Your task to perform on an android device: toggle show notifications on the lock screen Image 0: 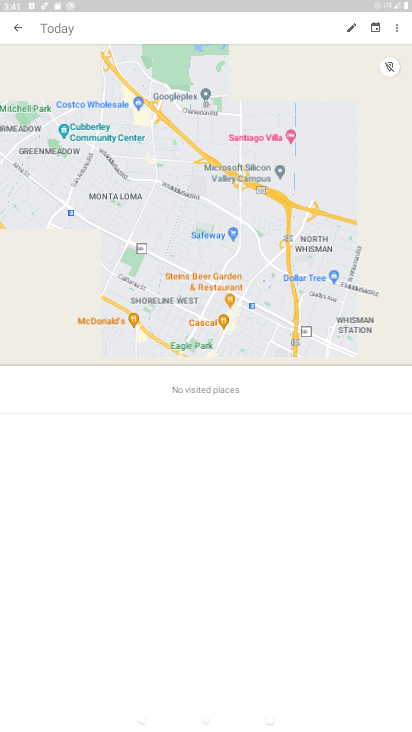
Step 0: press home button
Your task to perform on an android device: toggle show notifications on the lock screen Image 1: 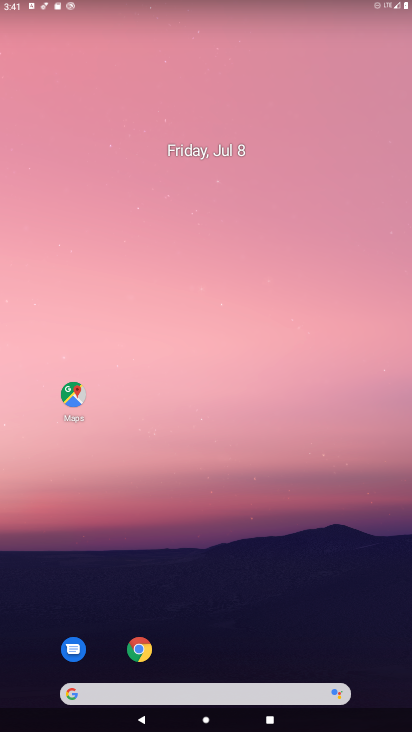
Step 1: drag from (391, 681) to (354, 122)
Your task to perform on an android device: toggle show notifications on the lock screen Image 2: 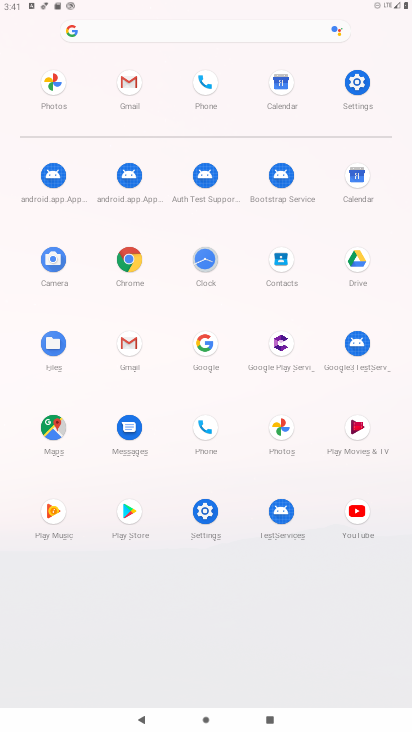
Step 2: click (205, 514)
Your task to perform on an android device: toggle show notifications on the lock screen Image 3: 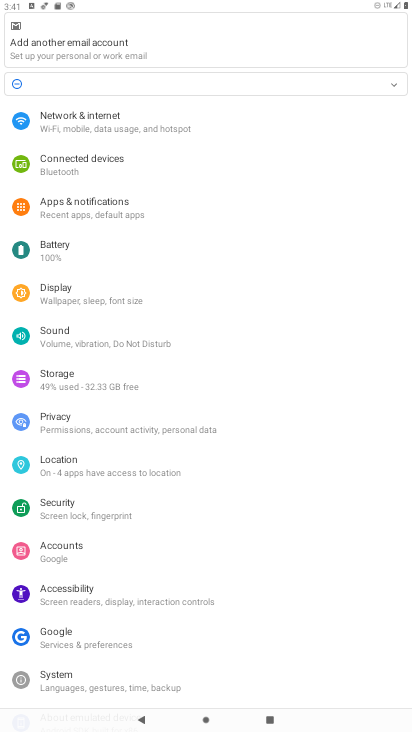
Step 3: click (79, 207)
Your task to perform on an android device: toggle show notifications on the lock screen Image 4: 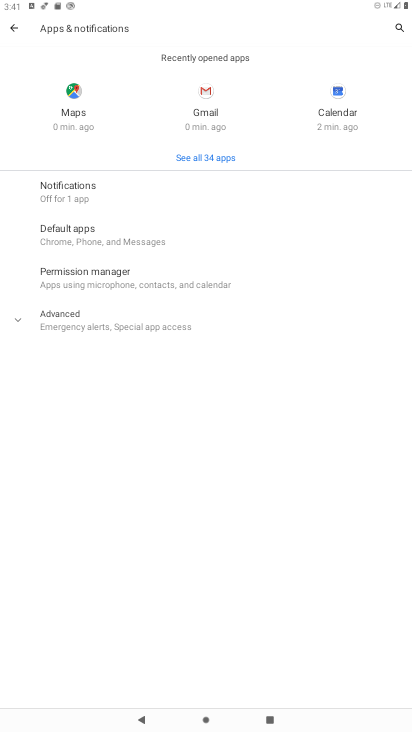
Step 4: click (53, 185)
Your task to perform on an android device: toggle show notifications on the lock screen Image 5: 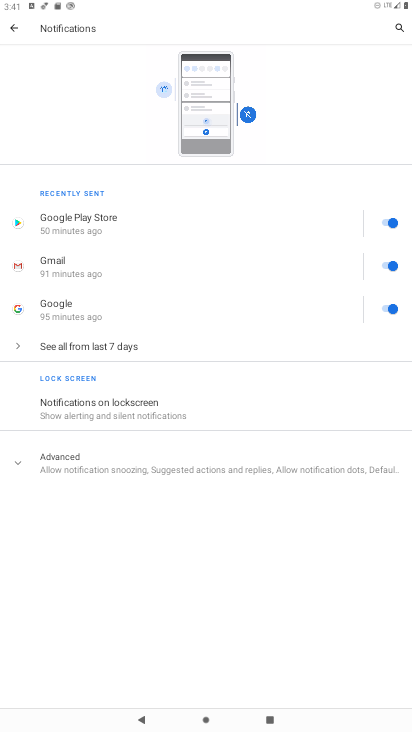
Step 5: click (120, 405)
Your task to perform on an android device: toggle show notifications on the lock screen Image 6: 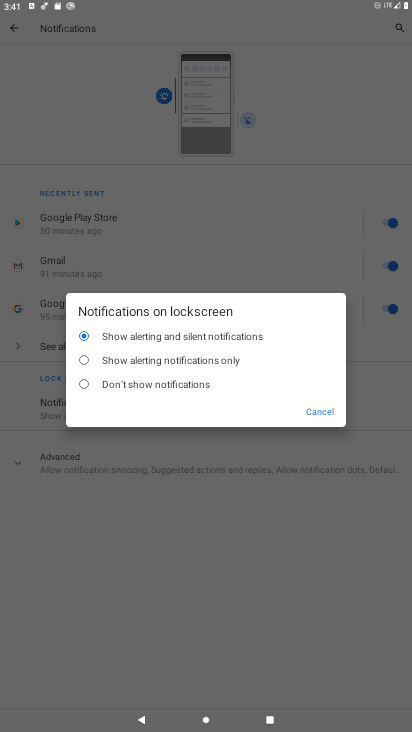
Step 6: click (81, 359)
Your task to perform on an android device: toggle show notifications on the lock screen Image 7: 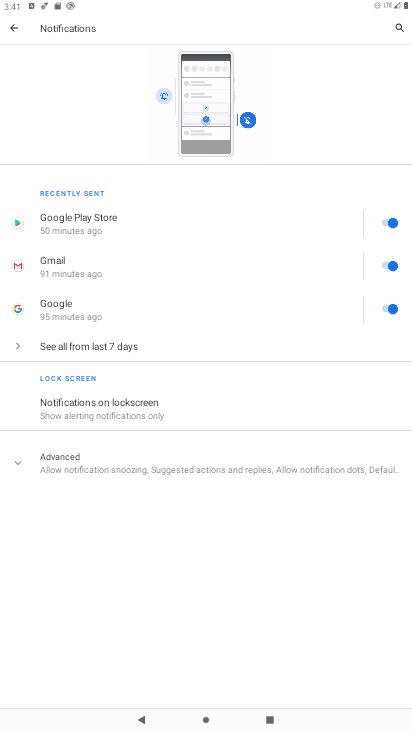
Step 7: task complete